Your task to perform on an android device: Do I have any events this weekend? Image 0: 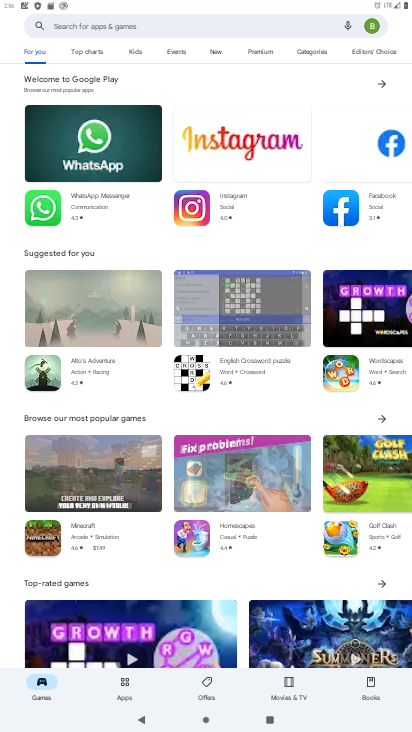
Step 0: drag from (258, 566) to (58, 7)
Your task to perform on an android device: Do I have any events this weekend? Image 1: 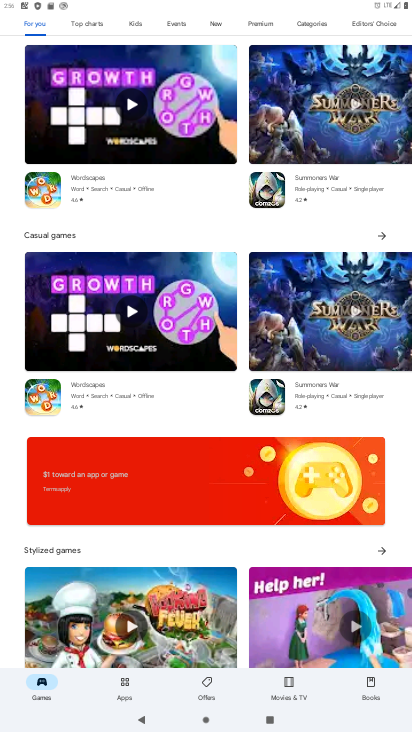
Step 1: drag from (245, 41) to (311, 725)
Your task to perform on an android device: Do I have any events this weekend? Image 2: 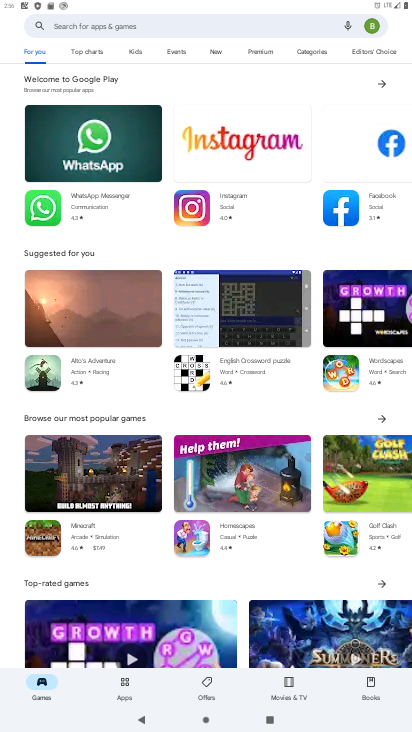
Step 2: press home button
Your task to perform on an android device: Do I have any events this weekend? Image 3: 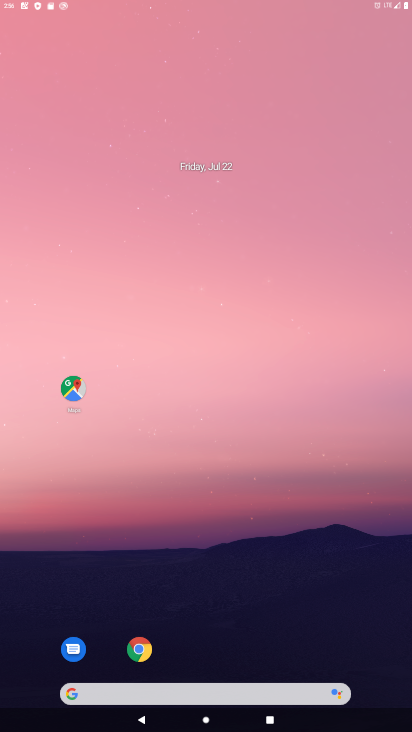
Step 3: drag from (252, 628) to (410, 64)
Your task to perform on an android device: Do I have any events this weekend? Image 4: 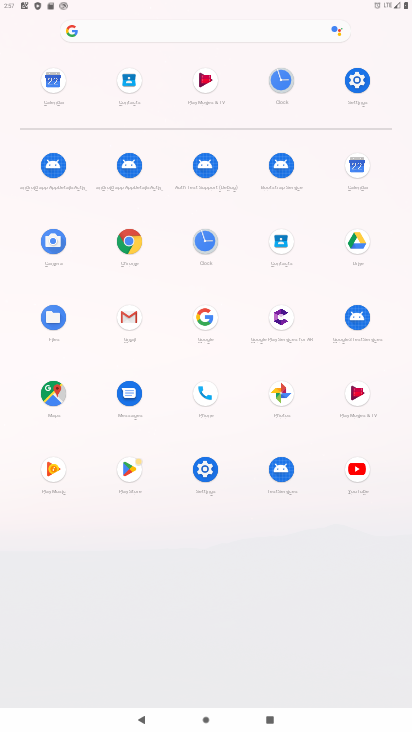
Step 4: click (345, 162)
Your task to perform on an android device: Do I have any events this weekend? Image 5: 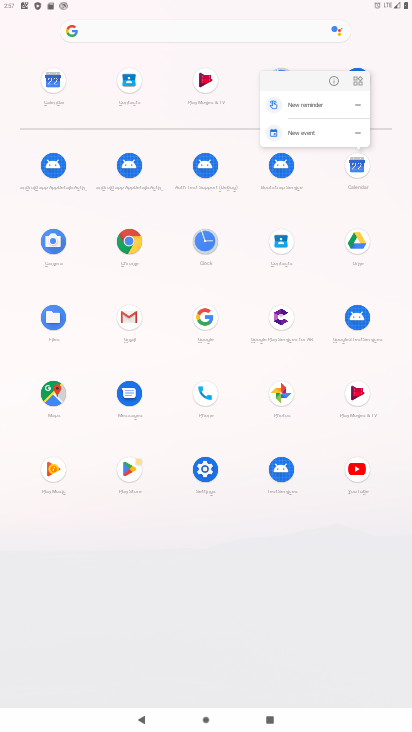
Step 5: click (326, 77)
Your task to perform on an android device: Do I have any events this weekend? Image 6: 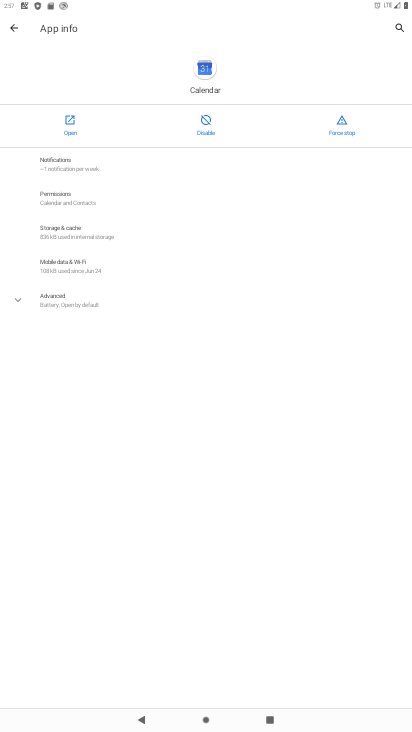
Step 6: click (71, 128)
Your task to perform on an android device: Do I have any events this weekend? Image 7: 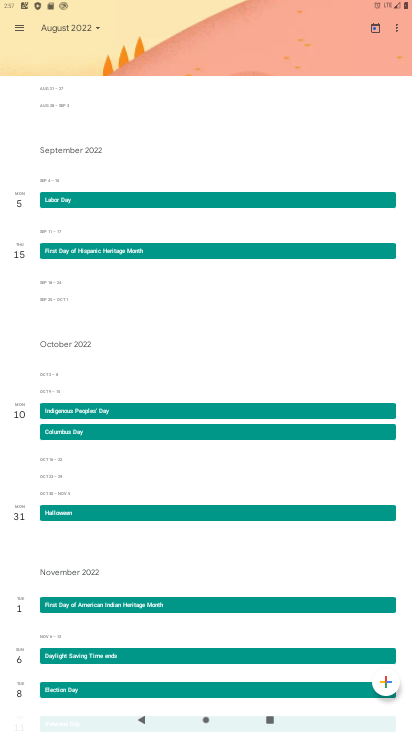
Step 7: click (79, 31)
Your task to perform on an android device: Do I have any events this weekend? Image 8: 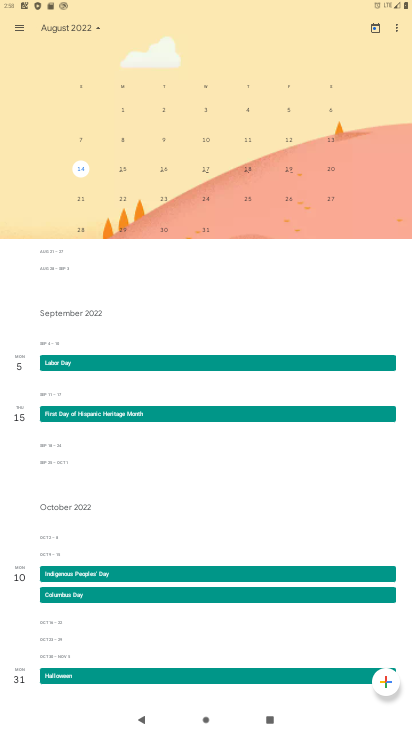
Step 8: click (377, 30)
Your task to perform on an android device: Do I have any events this weekend? Image 9: 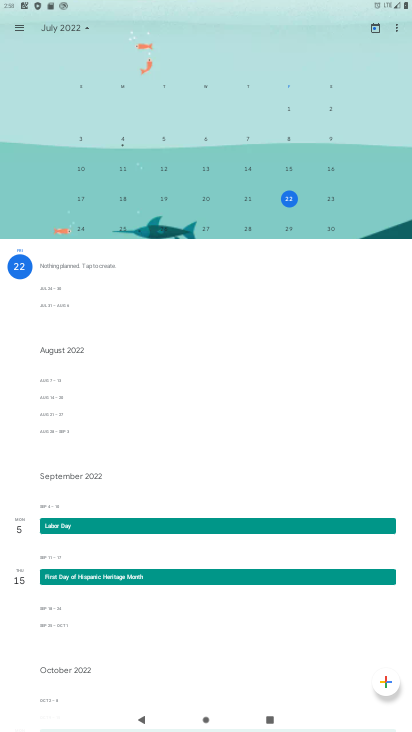
Step 9: click (330, 200)
Your task to perform on an android device: Do I have any events this weekend? Image 10: 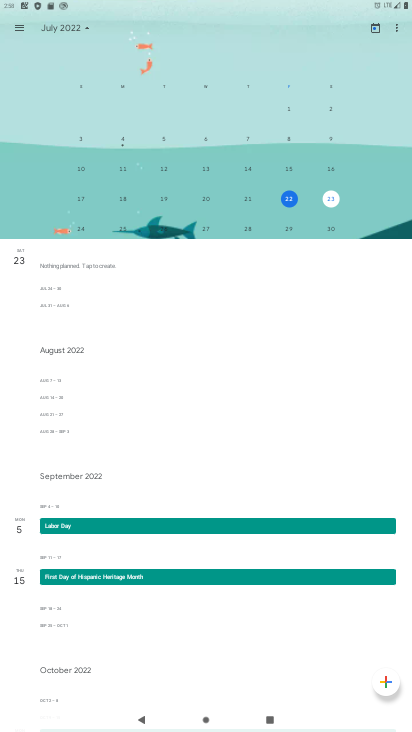
Step 10: task complete